Your task to perform on an android device: turn on sleep mode Image 0: 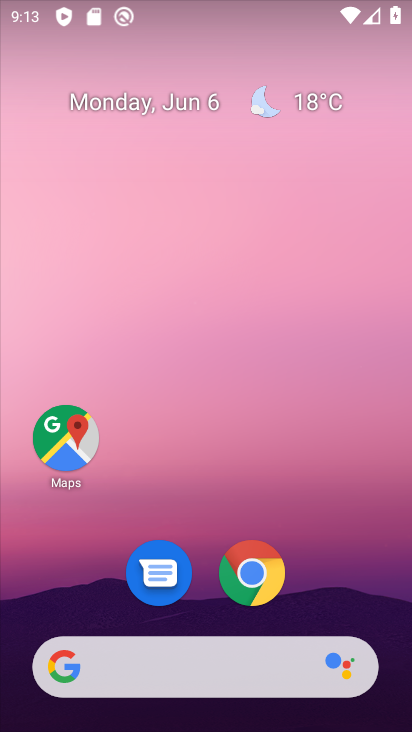
Step 0: drag from (373, 604) to (318, 189)
Your task to perform on an android device: turn on sleep mode Image 1: 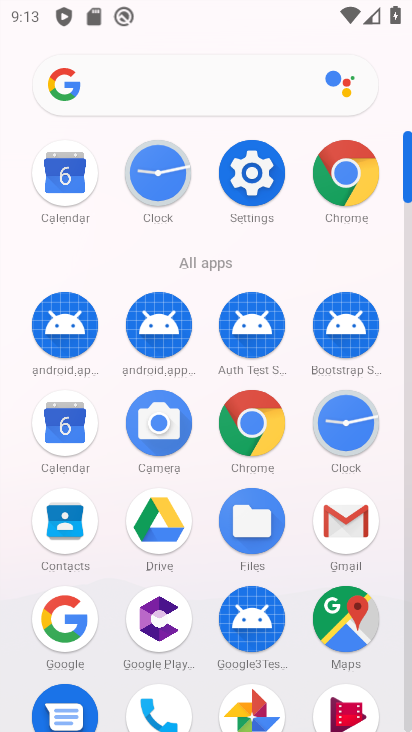
Step 1: click (262, 189)
Your task to perform on an android device: turn on sleep mode Image 2: 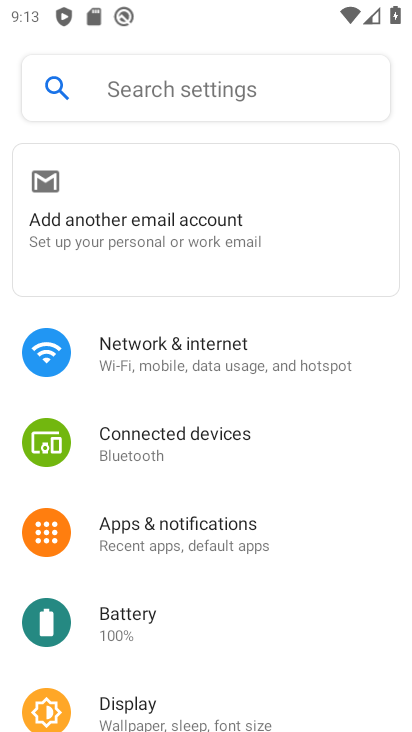
Step 2: click (179, 712)
Your task to perform on an android device: turn on sleep mode Image 3: 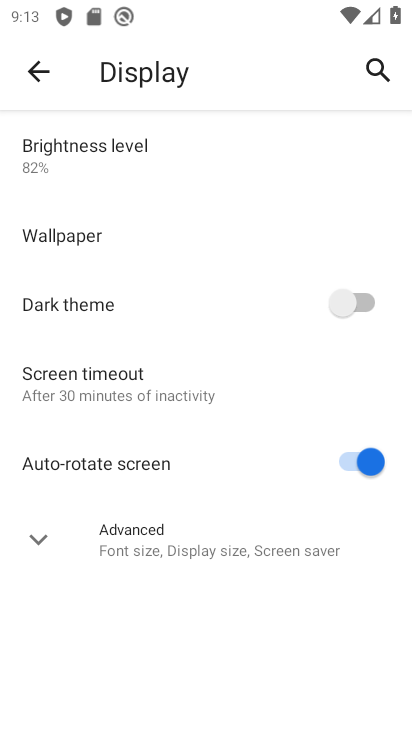
Step 3: click (249, 562)
Your task to perform on an android device: turn on sleep mode Image 4: 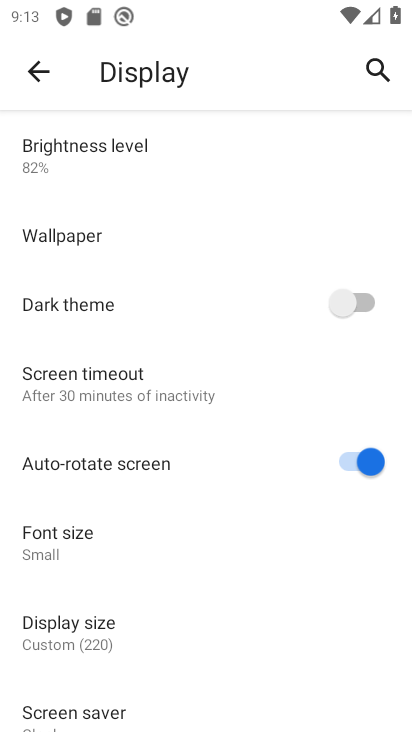
Step 4: task complete